Your task to perform on an android device: turn on airplane mode Image 0: 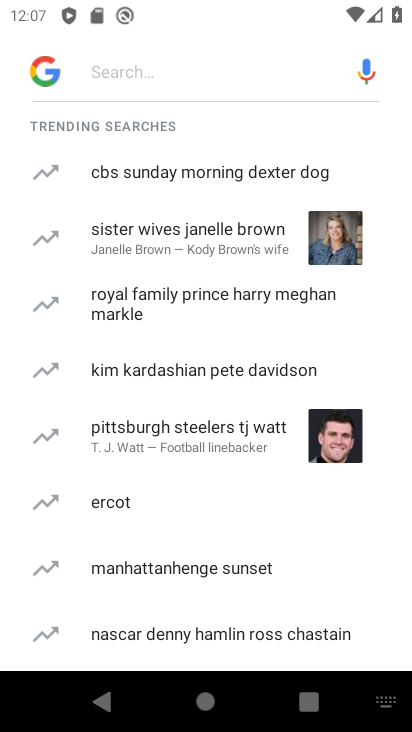
Step 0: press home button
Your task to perform on an android device: turn on airplane mode Image 1: 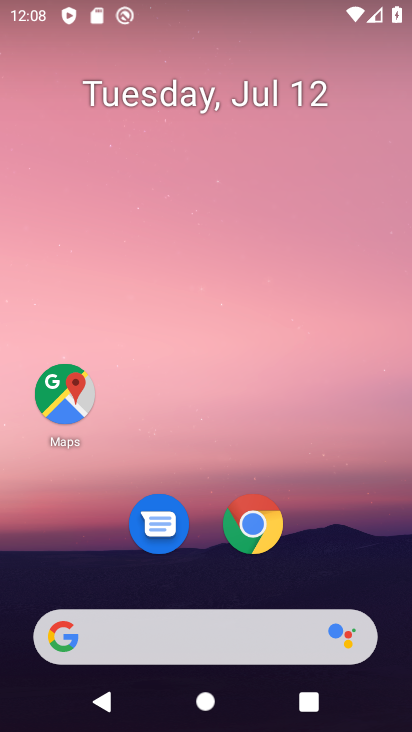
Step 1: drag from (196, 101) to (192, 11)
Your task to perform on an android device: turn on airplane mode Image 2: 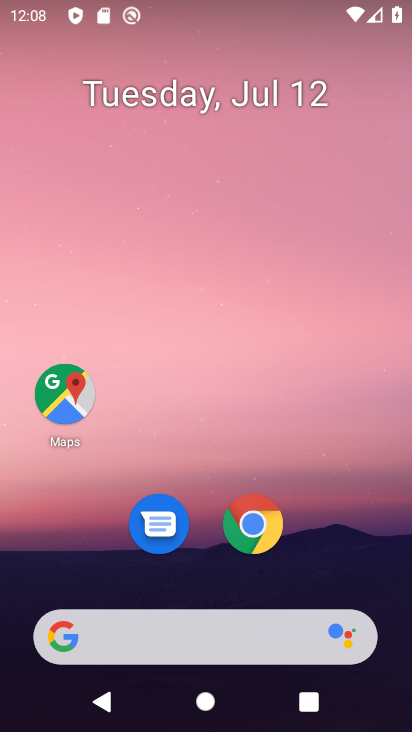
Step 2: drag from (333, 527) to (369, 25)
Your task to perform on an android device: turn on airplane mode Image 3: 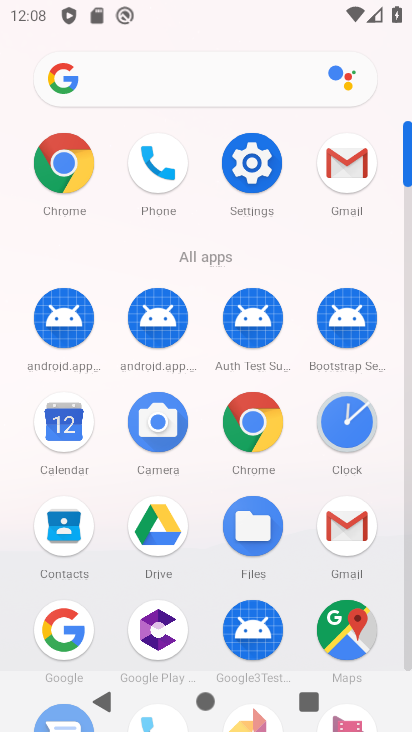
Step 3: click (245, 167)
Your task to perform on an android device: turn on airplane mode Image 4: 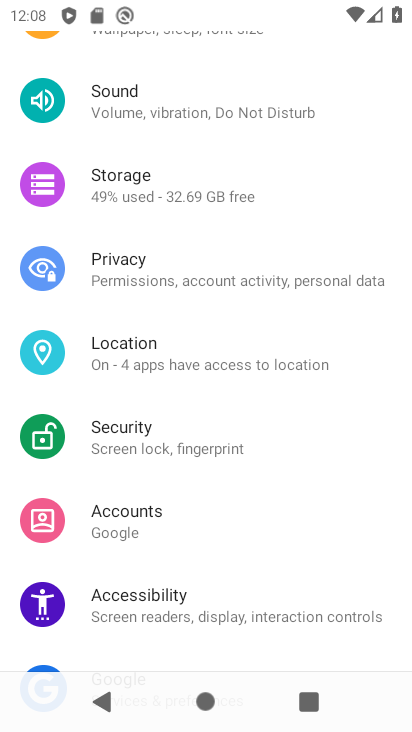
Step 4: drag from (245, 170) to (206, 610)
Your task to perform on an android device: turn on airplane mode Image 5: 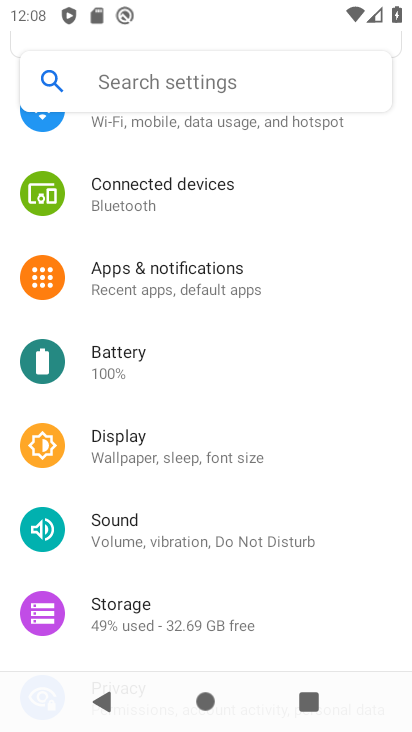
Step 5: drag from (204, 244) to (166, 490)
Your task to perform on an android device: turn on airplane mode Image 6: 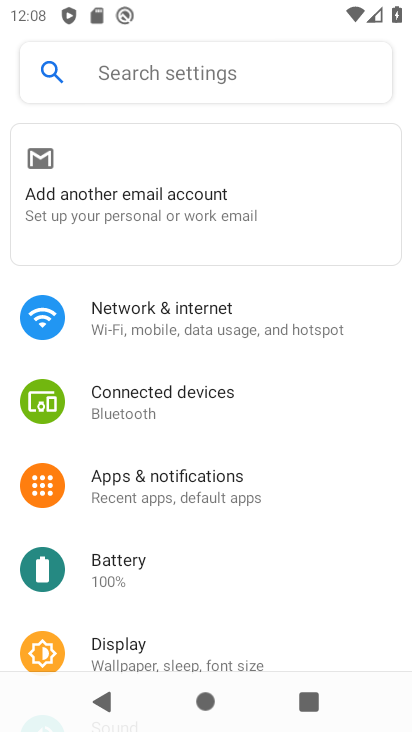
Step 6: click (211, 328)
Your task to perform on an android device: turn on airplane mode Image 7: 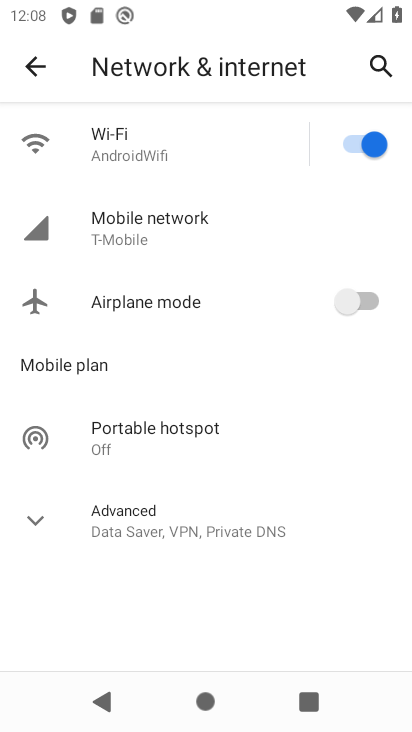
Step 7: click (364, 299)
Your task to perform on an android device: turn on airplane mode Image 8: 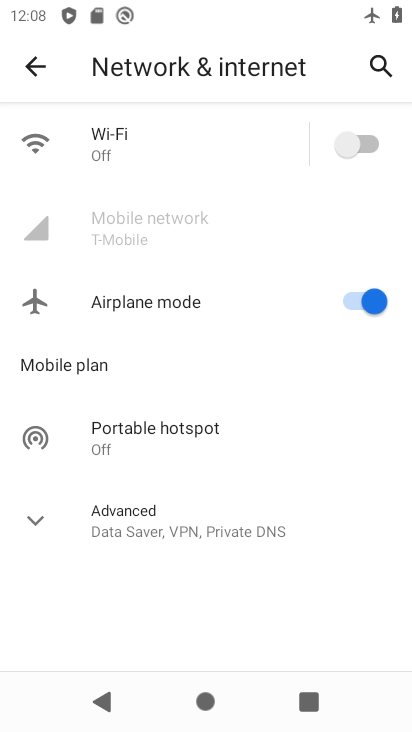
Step 8: task complete